Your task to perform on an android device: Turn on the flashlight Image 0: 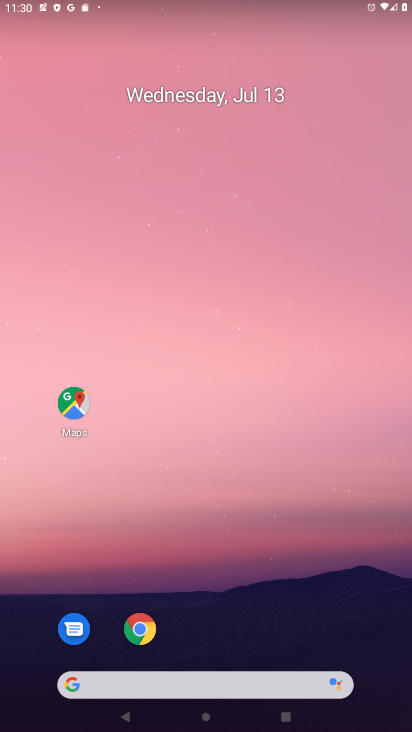
Step 0: drag from (299, 618) to (255, 368)
Your task to perform on an android device: Turn on the flashlight Image 1: 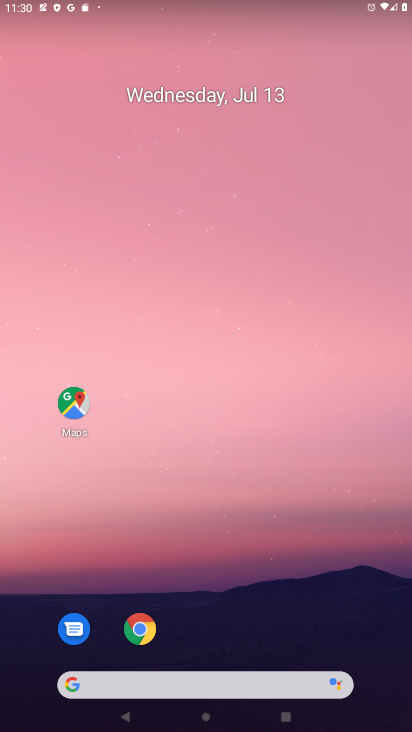
Step 1: drag from (237, 624) to (277, 126)
Your task to perform on an android device: Turn on the flashlight Image 2: 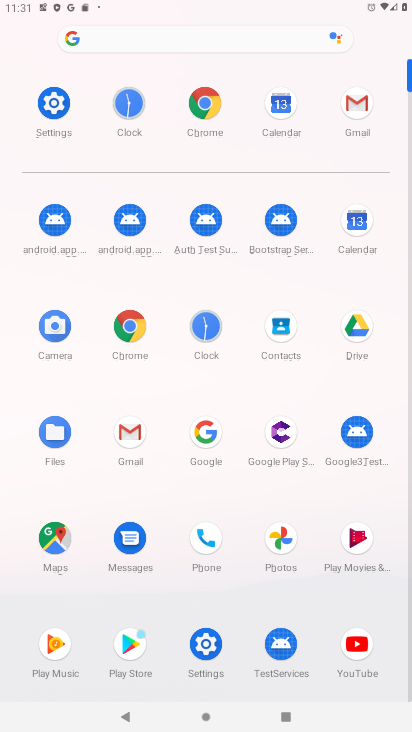
Step 2: click (57, 96)
Your task to perform on an android device: Turn on the flashlight Image 3: 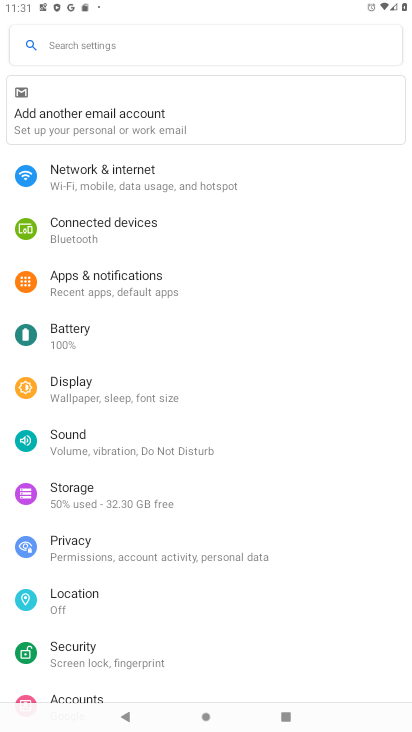
Step 3: task complete